Your task to perform on an android device: change the upload size in google photos Image 0: 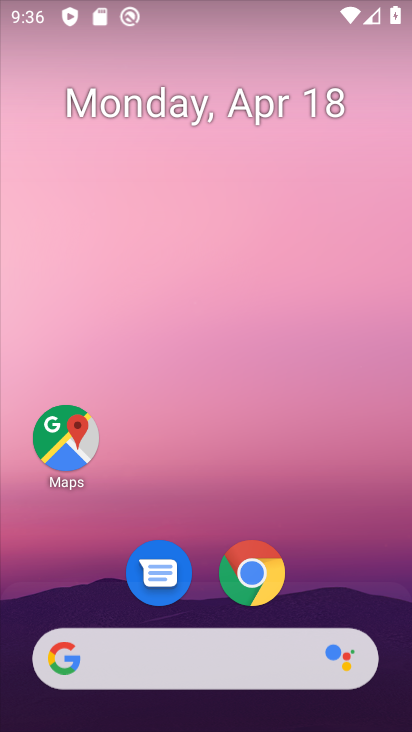
Step 0: drag from (217, 712) to (235, 108)
Your task to perform on an android device: change the upload size in google photos Image 1: 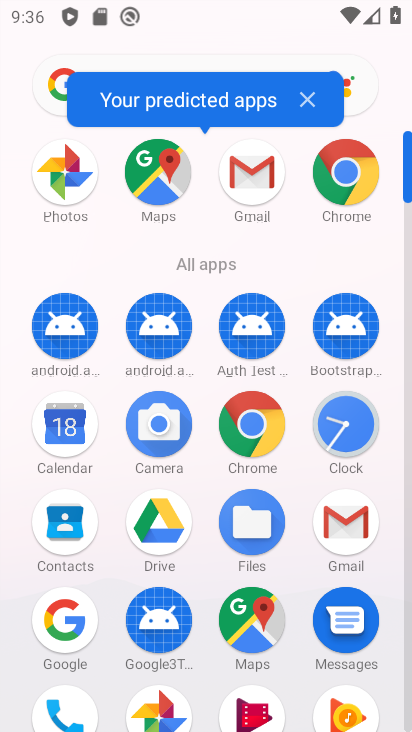
Step 1: click (62, 173)
Your task to perform on an android device: change the upload size in google photos Image 2: 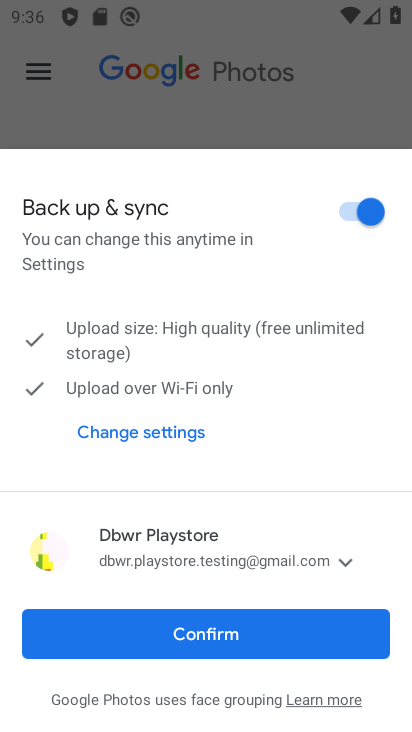
Step 2: click (211, 633)
Your task to perform on an android device: change the upload size in google photos Image 3: 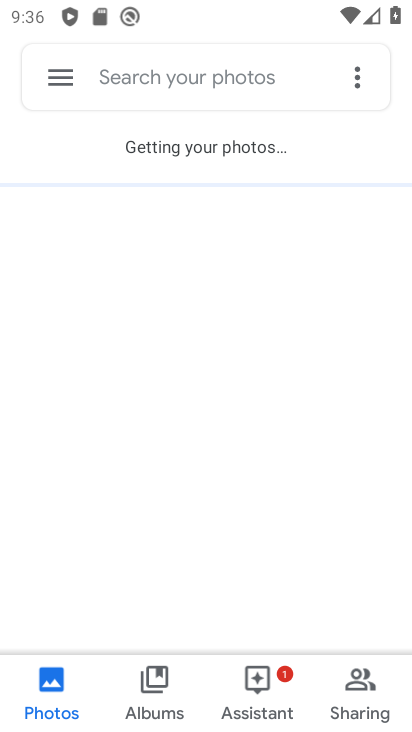
Step 3: click (62, 77)
Your task to perform on an android device: change the upload size in google photos Image 4: 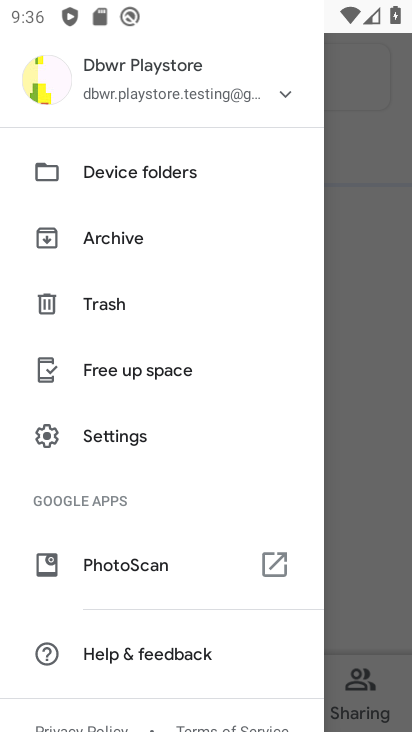
Step 4: click (123, 436)
Your task to perform on an android device: change the upload size in google photos Image 5: 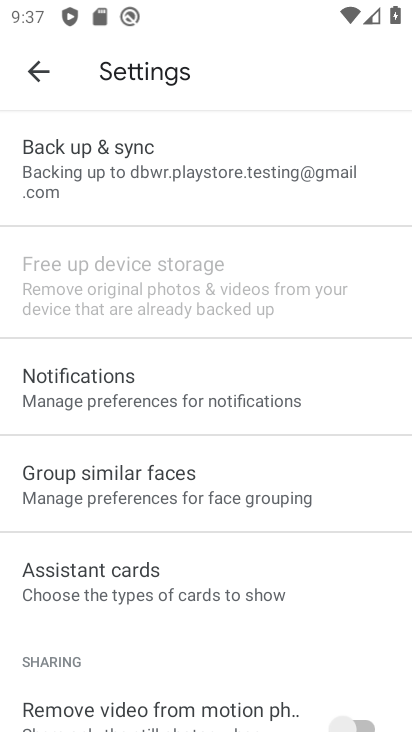
Step 5: click (111, 162)
Your task to perform on an android device: change the upload size in google photos Image 6: 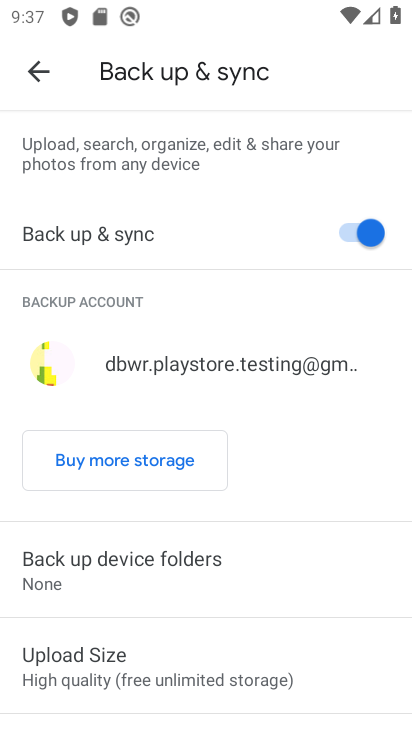
Step 6: click (99, 671)
Your task to perform on an android device: change the upload size in google photos Image 7: 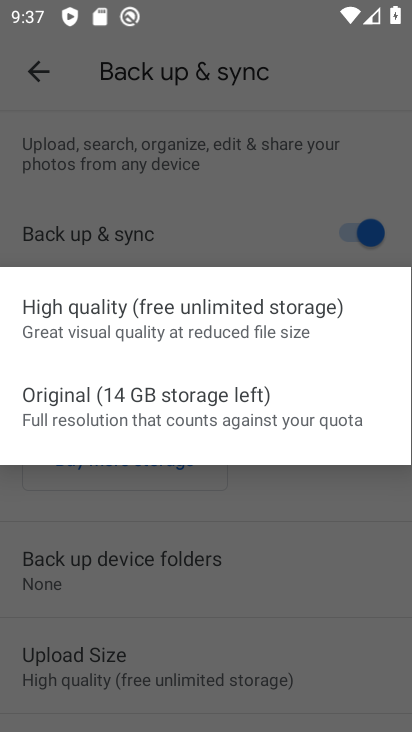
Step 7: click (88, 399)
Your task to perform on an android device: change the upload size in google photos Image 8: 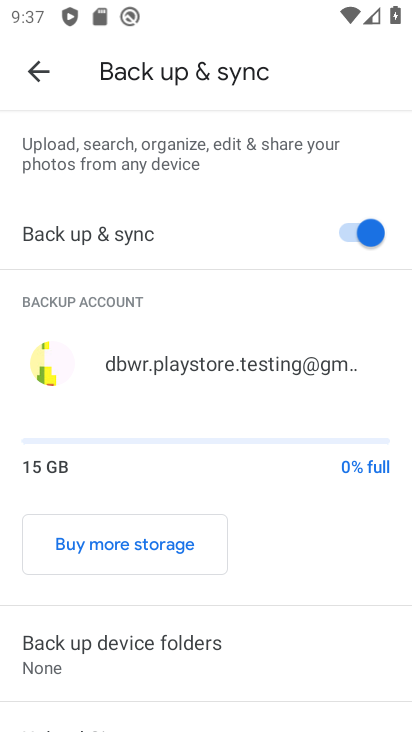
Step 8: task complete